Your task to perform on an android device: Go to notification settings Image 0: 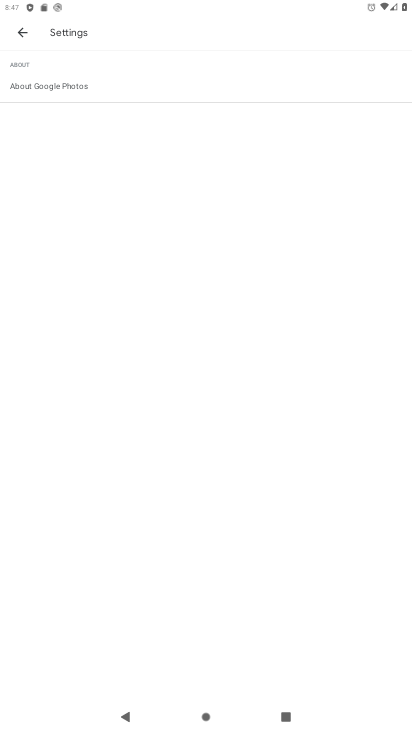
Step 0: press home button
Your task to perform on an android device: Go to notification settings Image 1: 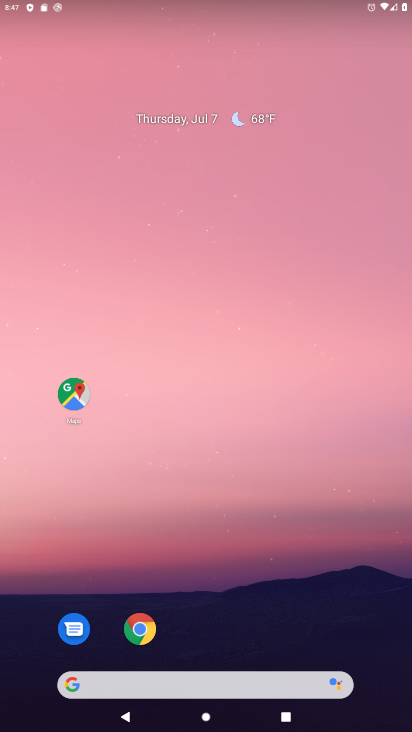
Step 1: drag from (232, 641) to (236, 104)
Your task to perform on an android device: Go to notification settings Image 2: 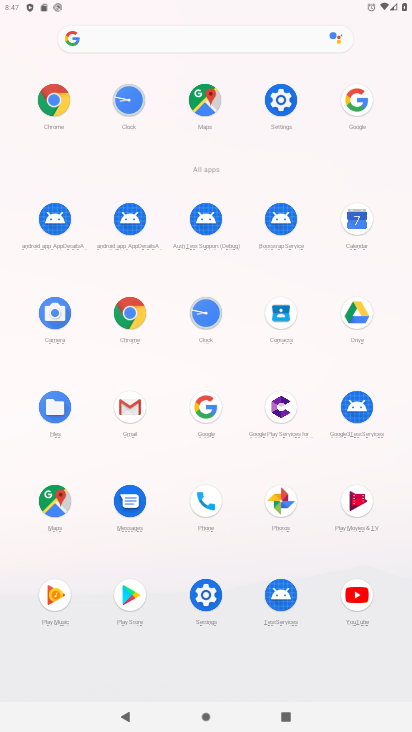
Step 2: click (278, 99)
Your task to perform on an android device: Go to notification settings Image 3: 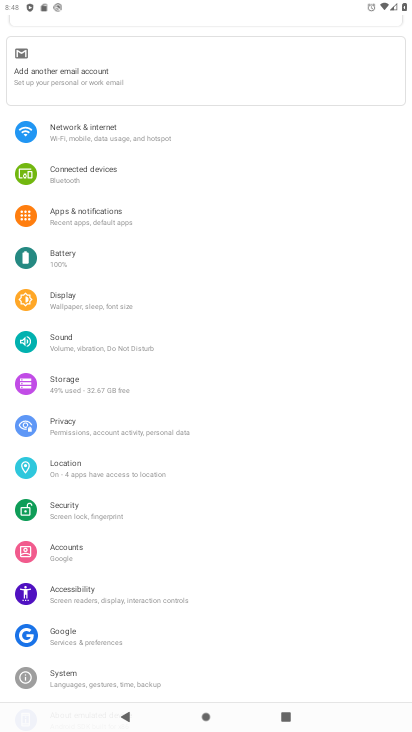
Step 3: click (112, 215)
Your task to perform on an android device: Go to notification settings Image 4: 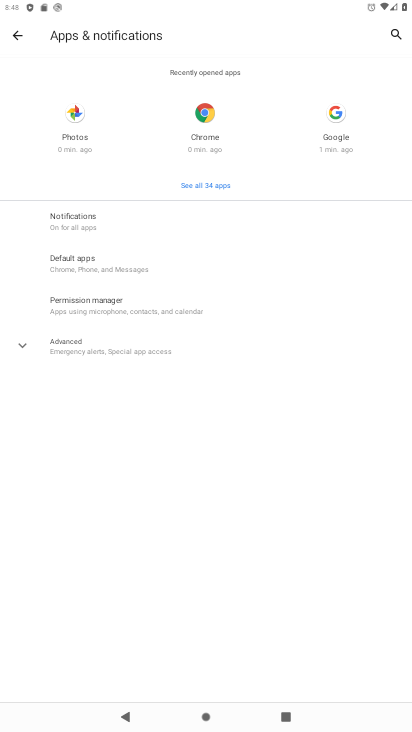
Step 4: click (117, 219)
Your task to perform on an android device: Go to notification settings Image 5: 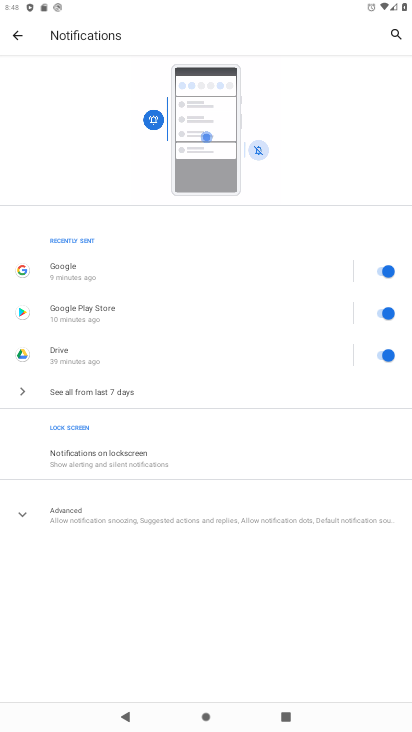
Step 5: click (83, 516)
Your task to perform on an android device: Go to notification settings Image 6: 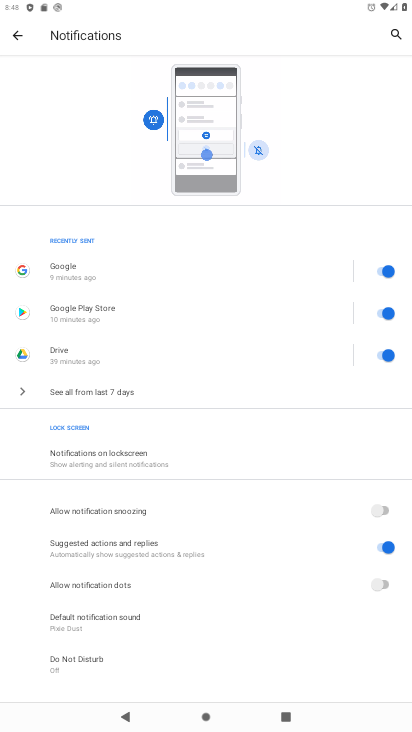
Step 6: click (390, 545)
Your task to perform on an android device: Go to notification settings Image 7: 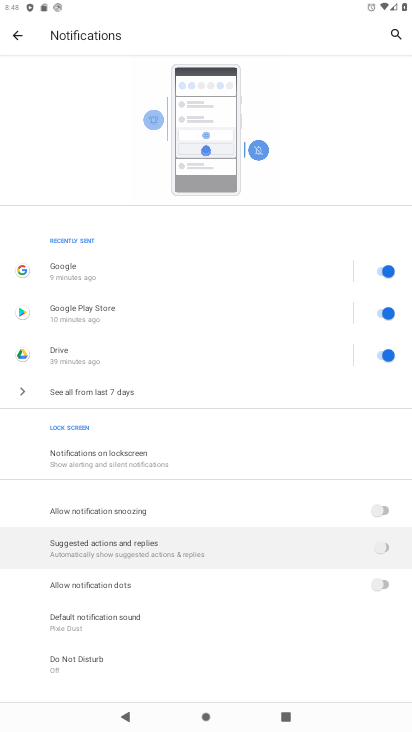
Step 7: click (382, 512)
Your task to perform on an android device: Go to notification settings Image 8: 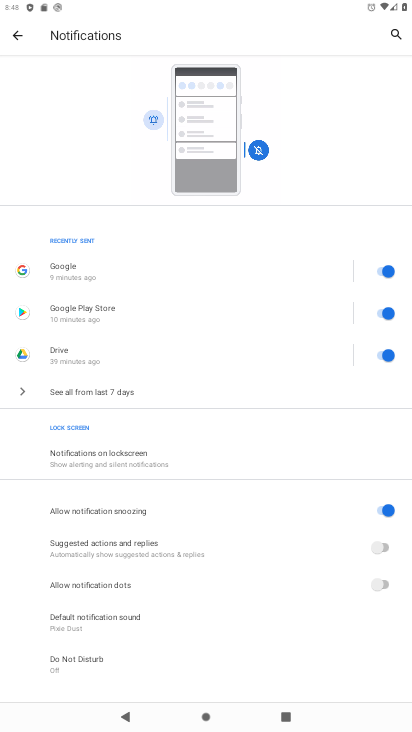
Step 8: click (383, 590)
Your task to perform on an android device: Go to notification settings Image 9: 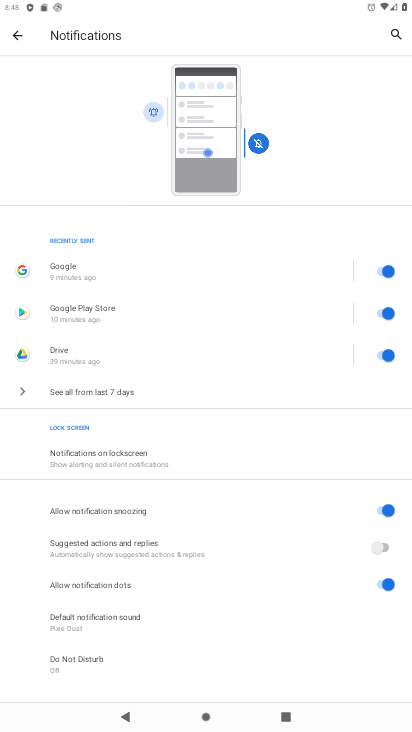
Step 9: task complete